Your task to perform on an android device: open app "Reddit" Image 0: 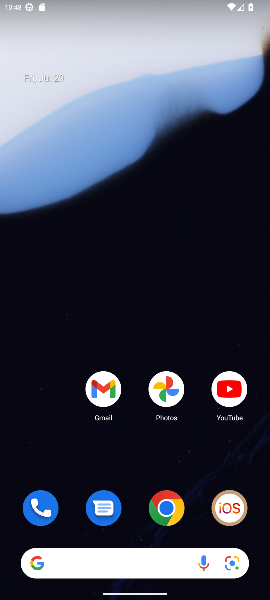
Step 0: drag from (148, 552) to (209, 8)
Your task to perform on an android device: open app "Reddit" Image 1: 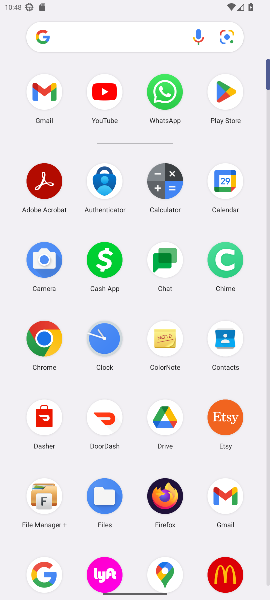
Step 1: drag from (186, 536) to (165, 519)
Your task to perform on an android device: open app "Reddit" Image 2: 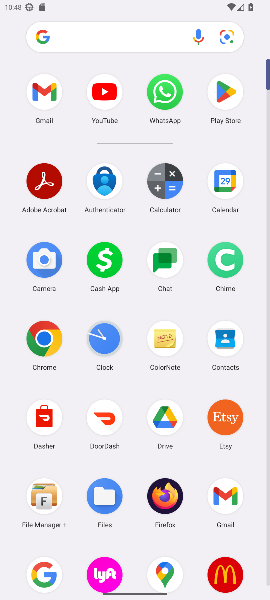
Step 2: click (229, 97)
Your task to perform on an android device: open app "Reddit" Image 3: 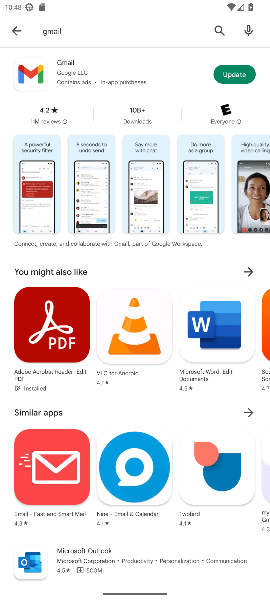
Step 3: click (222, 29)
Your task to perform on an android device: open app "Reddit" Image 4: 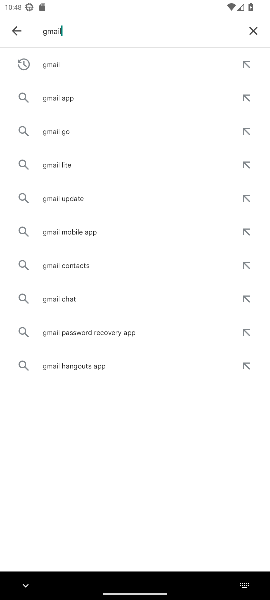
Step 4: click (258, 27)
Your task to perform on an android device: open app "Reddit" Image 5: 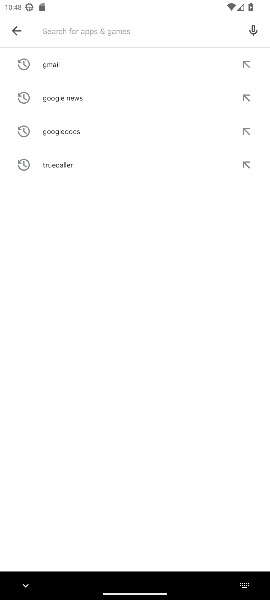
Step 5: type "reddit"
Your task to perform on an android device: open app "Reddit" Image 6: 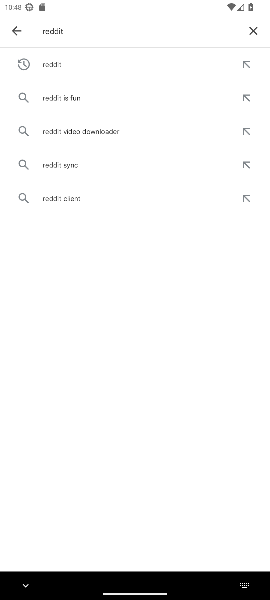
Step 6: click (41, 62)
Your task to perform on an android device: open app "Reddit" Image 7: 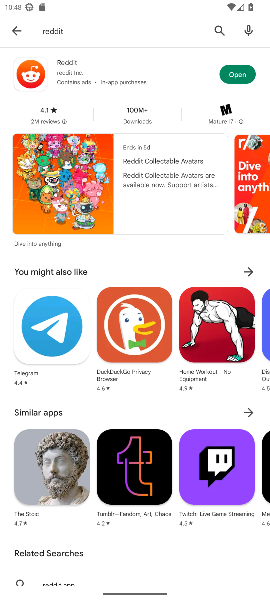
Step 7: click (234, 75)
Your task to perform on an android device: open app "Reddit" Image 8: 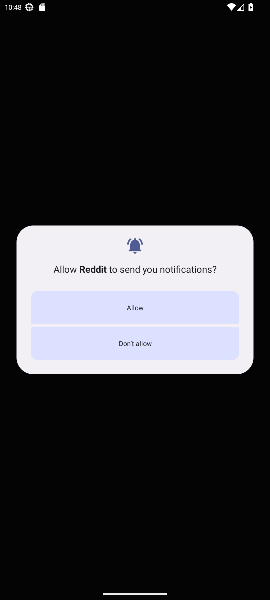
Step 8: task complete